Your task to perform on an android device: Open calendar and show me the third week of next month Image 0: 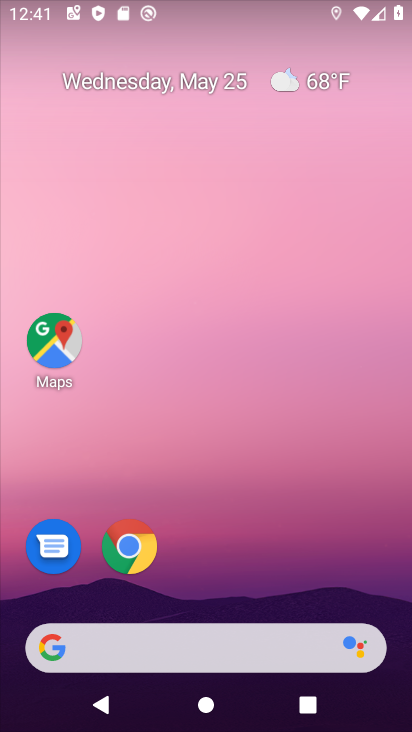
Step 0: drag from (262, 594) to (252, 508)
Your task to perform on an android device: Open calendar and show me the third week of next month Image 1: 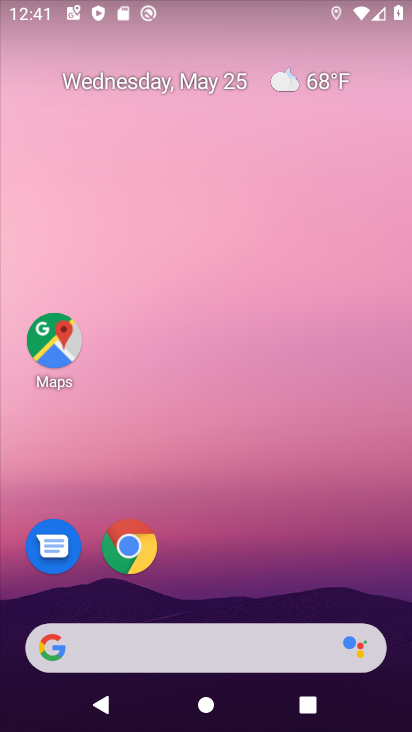
Step 1: drag from (268, 587) to (248, 388)
Your task to perform on an android device: Open calendar and show me the third week of next month Image 2: 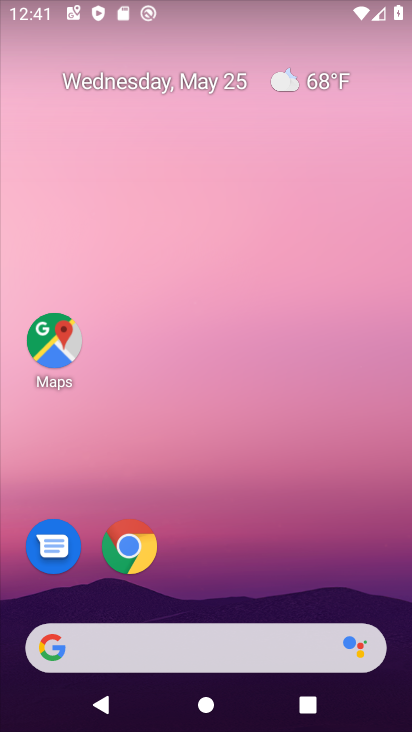
Step 2: drag from (264, 569) to (184, 77)
Your task to perform on an android device: Open calendar and show me the third week of next month Image 3: 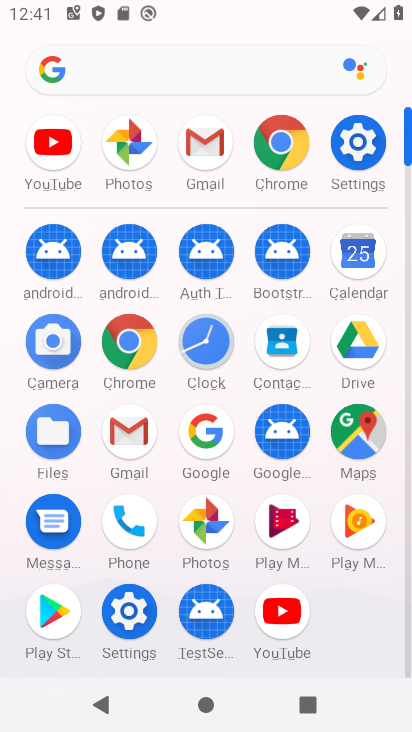
Step 3: click (348, 264)
Your task to perform on an android device: Open calendar and show me the third week of next month Image 4: 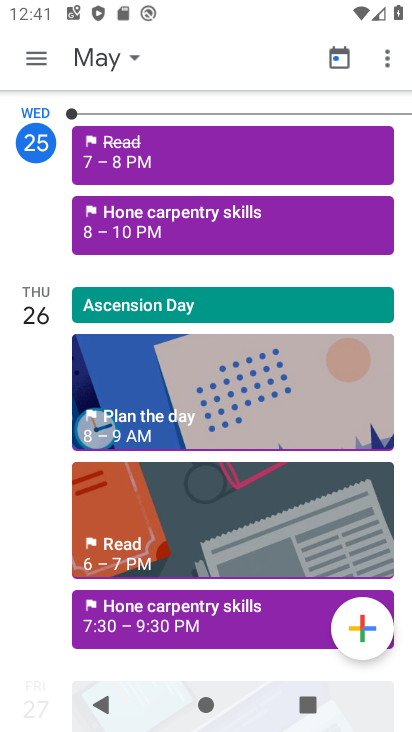
Step 4: task complete